Your task to perform on an android device: change keyboard looks Image 0: 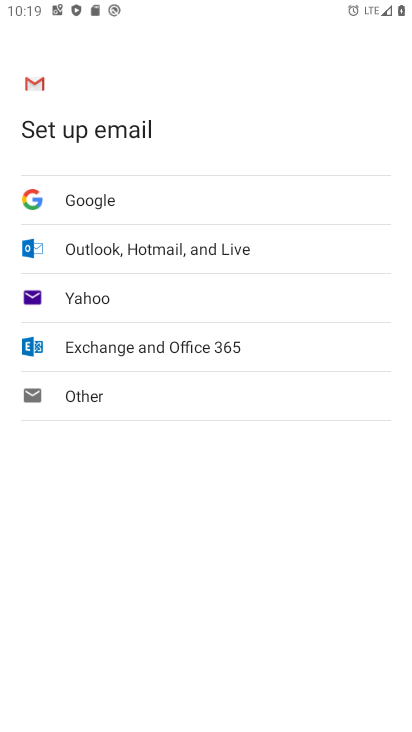
Step 0: press home button
Your task to perform on an android device: change keyboard looks Image 1: 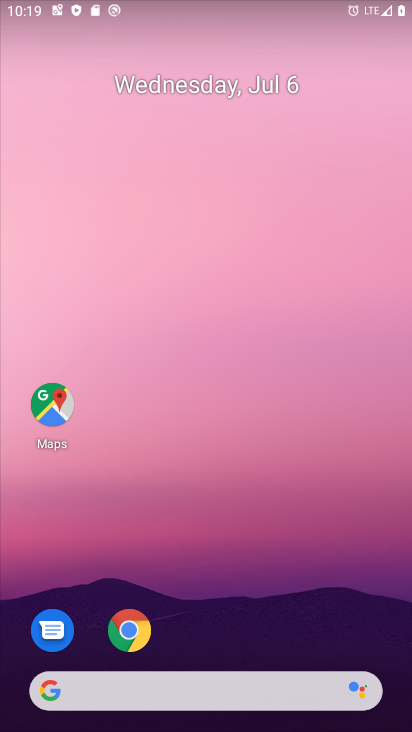
Step 1: drag from (358, 635) to (326, 55)
Your task to perform on an android device: change keyboard looks Image 2: 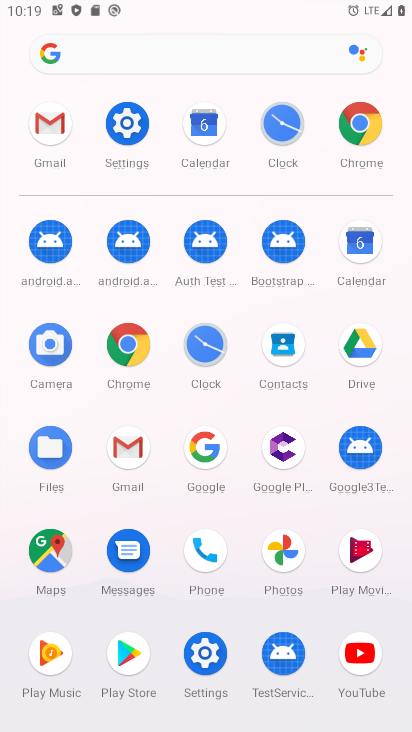
Step 2: click (203, 651)
Your task to perform on an android device: change keyboard looks Image 3: 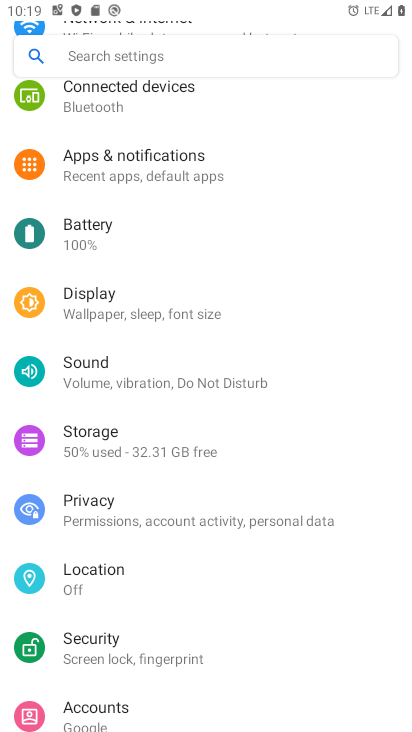
Step 3: drag from (337, 690) to (318, 241)
Your task to perform on an android device: change keyboard looks Image 4: 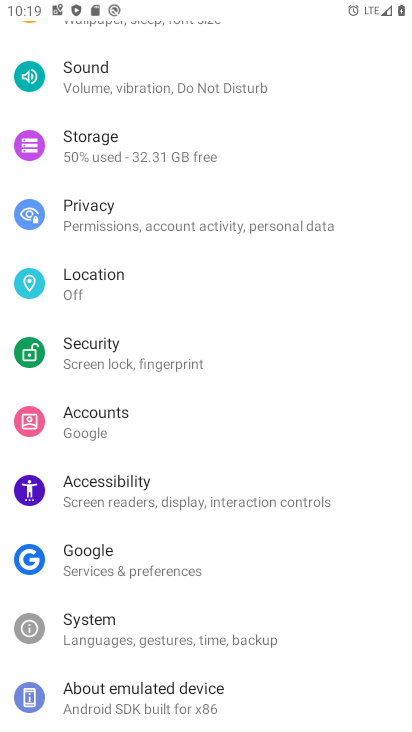
Step 4: click (94, 630)
Your task to perform on an android device: change keyboard looks Image 5: 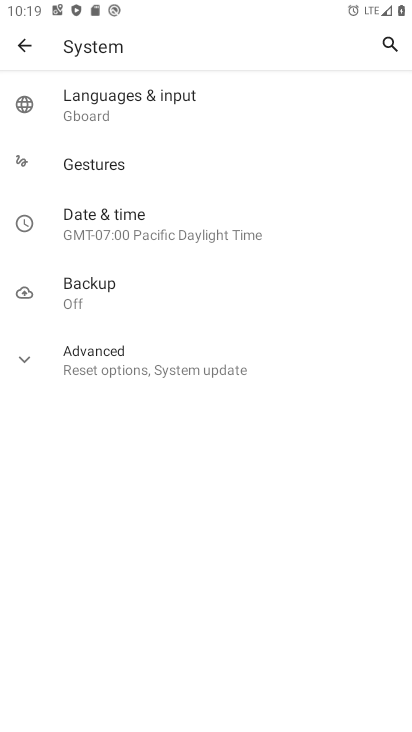
Step 5: click (109, 98)
Your task to perform on an android device: change keyboard looks Image 6: 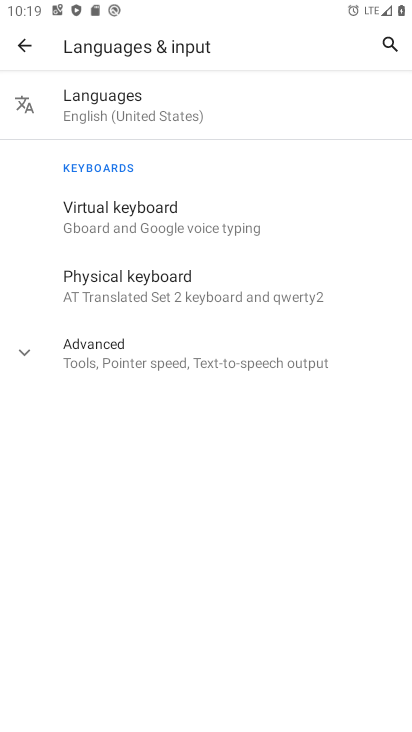
Step 6: click (117, 279)
Your task to perform on an android device: change keyboard looks Image 7: 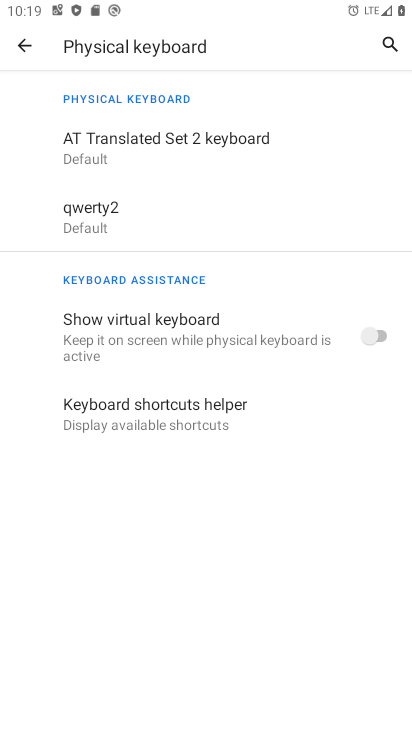
Step 7: click (95, 213)
Your task to perform on an android device: change keyboard looks Image 8: 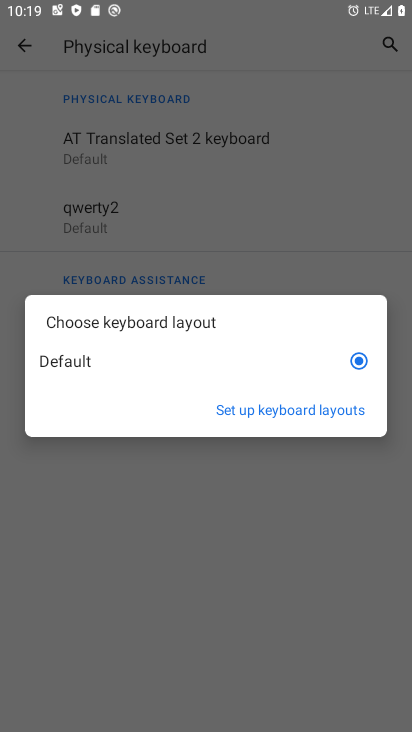
Step 8: click (318, 407)
Your task to perform on an android device: change keyboard looks Image 9: 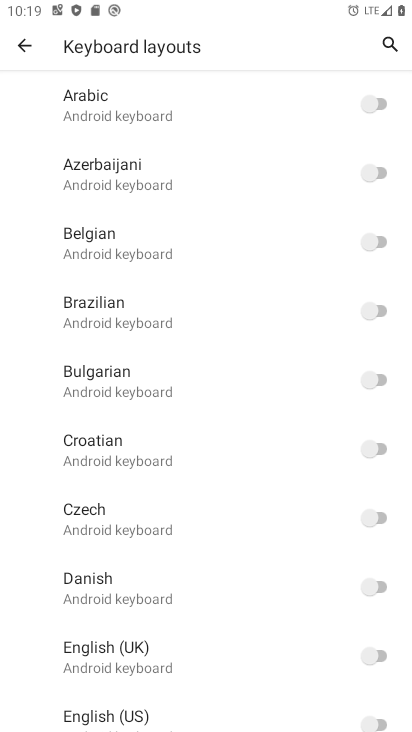
Step 9: click (377, 653)
Your task to perform on an android device: change keyboard looks Image 10: 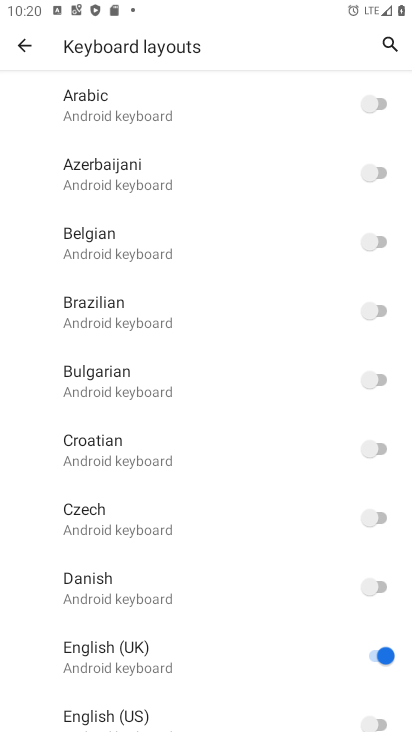
Step 10: task complete